Your task to perform on an android device: See recent photos Image 0: 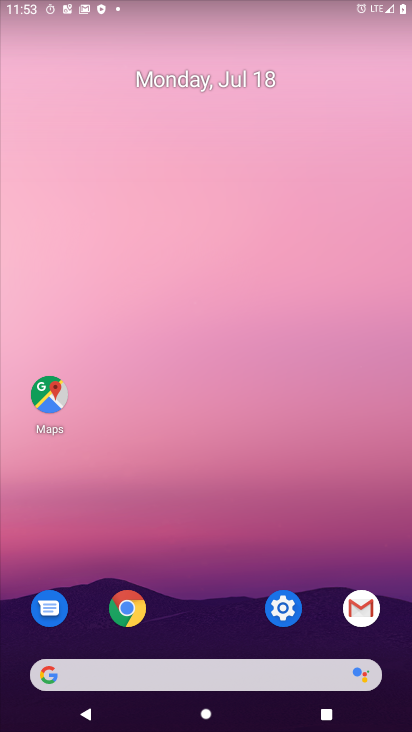
Step 0: drag from (249, 685) to (173, 226)
Your task to perform on an android device: See recent photos Image 1: 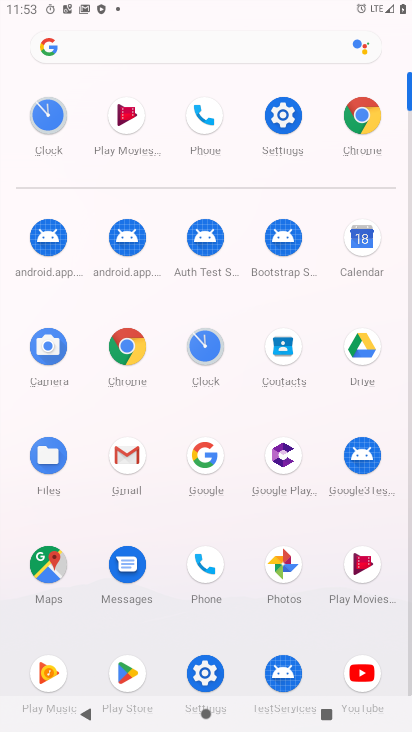
Step 1: click (300, 580)
Your task to perform on an android device: See recent photos Image 2: 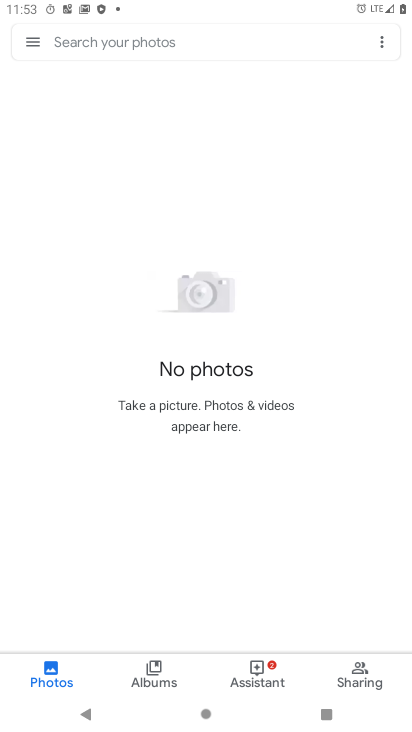
Step 2: click (329, 291)
Your task to perform on an android device: See recent photos Image 3: 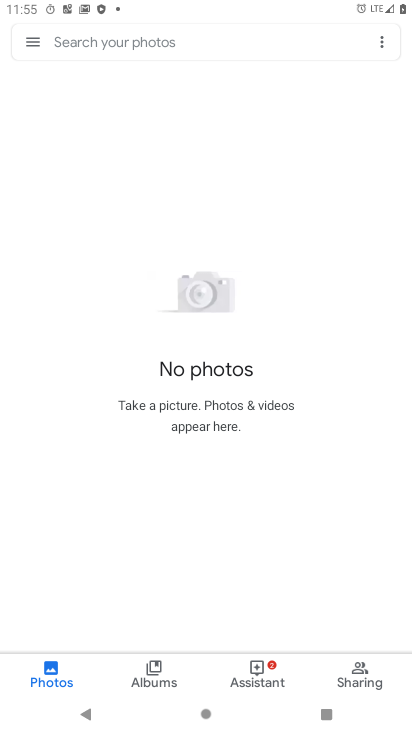
Step 3: task complete